Your task to perform on an android device: Open CNN.com Image 0: 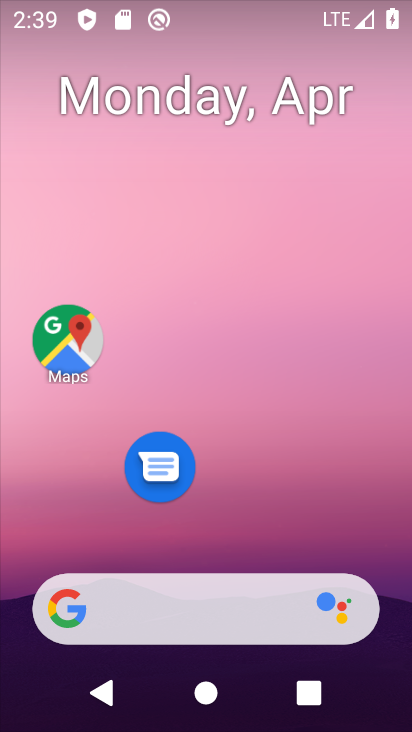
Step 0: drag from (287, 485) to (331, 36)
Your task to perform on an android device: Open CNN.com Image 1: 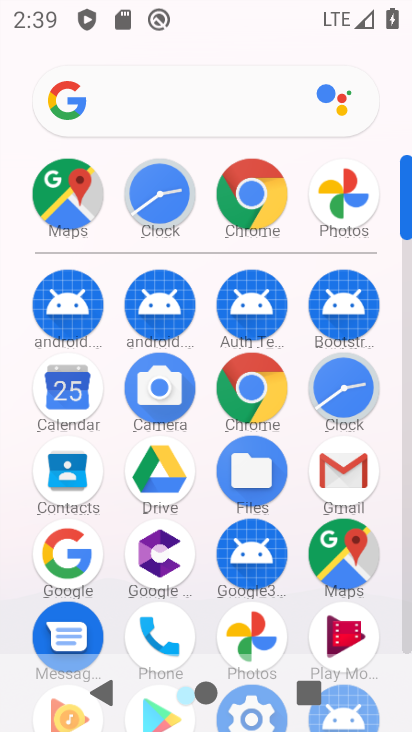
Step 1: click (257, 197)
Your task to perform on an android device: Open CNN.com Image 2: 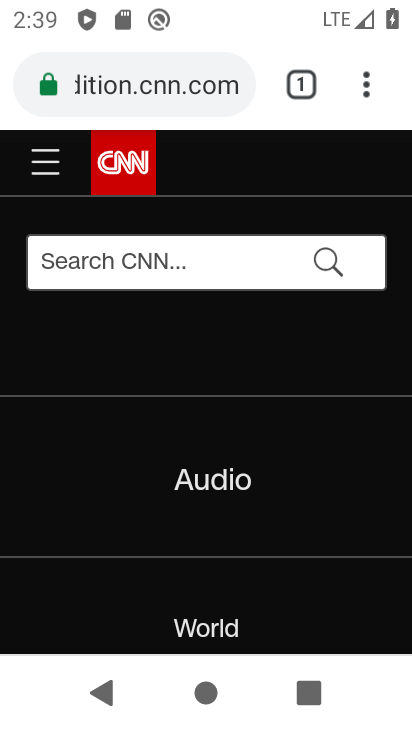
Step 2: task complete